Your task to perform on an android device: Open location settings Image 0: 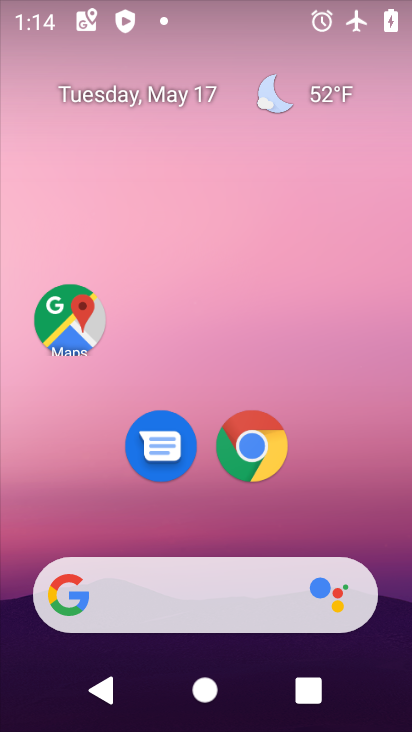
Step 0: drag from (202, 533) to (202, 173)
Your task to perform on an android device: Open location settings Image 1: 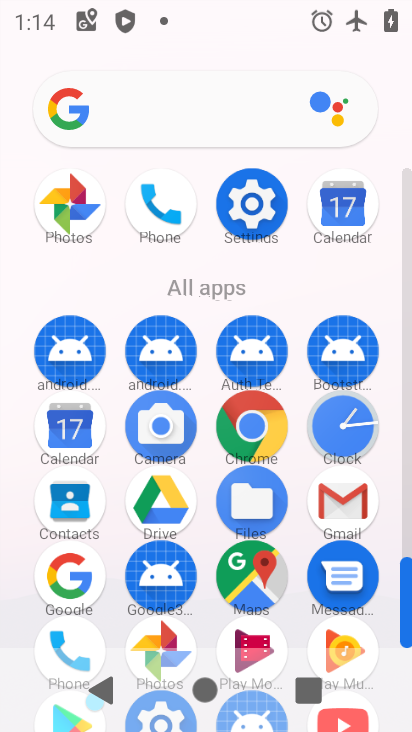
Step 1: click (247, 204)
Your task to perform on an android device: Open location settings Image 2: 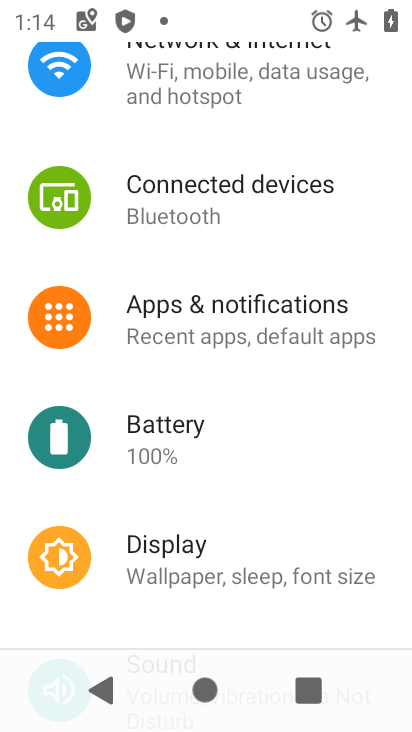
Step 2: drag from (213, 214) to (205, 486)
Your task to perform on an android device: Open location settings Image 3: 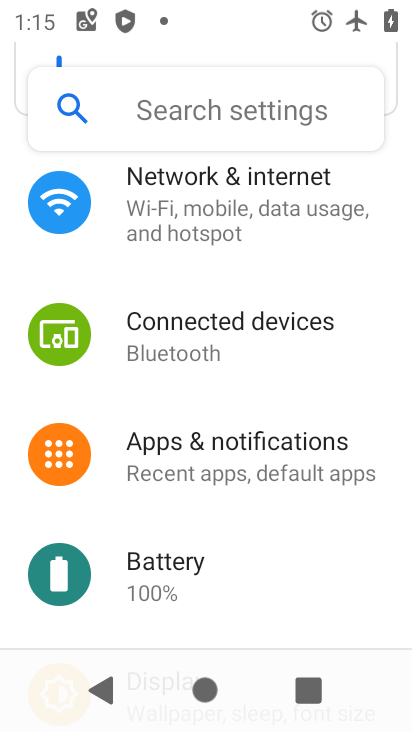
Step 3: drag from (243, 557) to (230, 412)
Your task to perform on an android device: Open location settings Image 4: 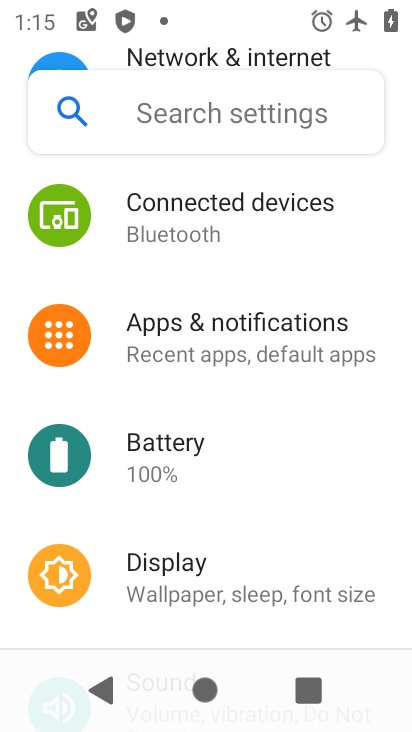
Step 4: click (244, 249)
Your task to perform on an android device: Open location settings Image 5: 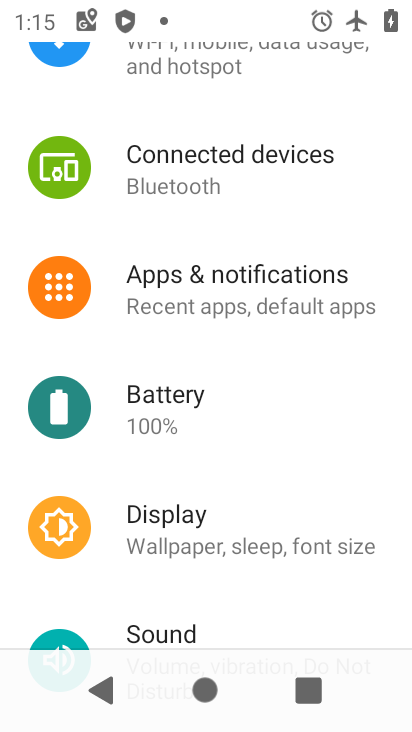
Step 5: drag from (177, 551) to (185, 323)
Your task to perform on an android device: Open location settings Image 6: 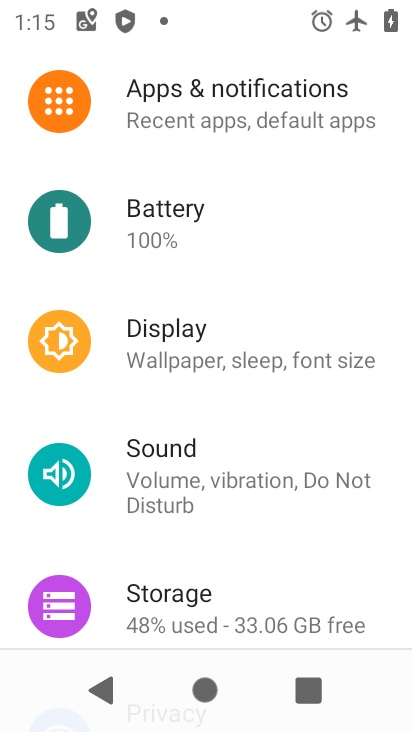
Step 6: drag from (207, 590) to (242, 292)
Your task to perform on an android device: Open location settings Image 7: 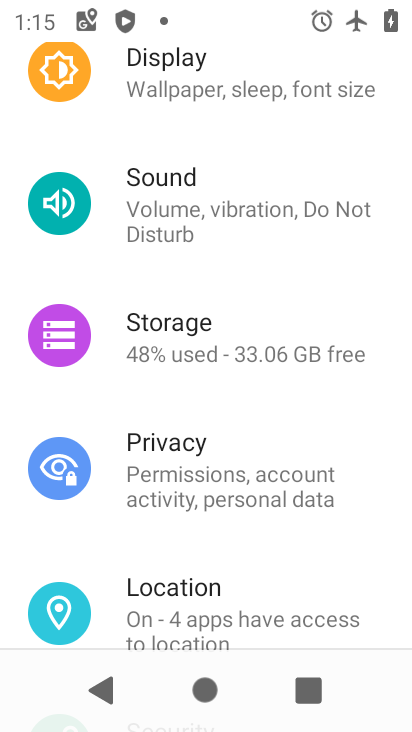
Step 7: click (176, 610)
Your task to perform on an android device: Open location settings Image 8: 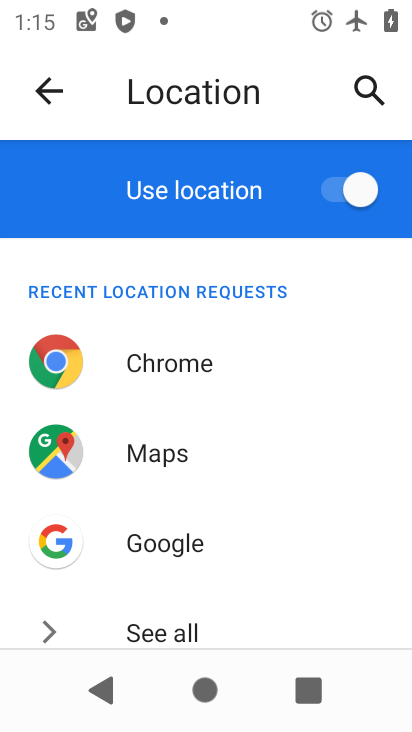
Step 8: task complete